Your task to perform on an android device: Check the news Image 0: 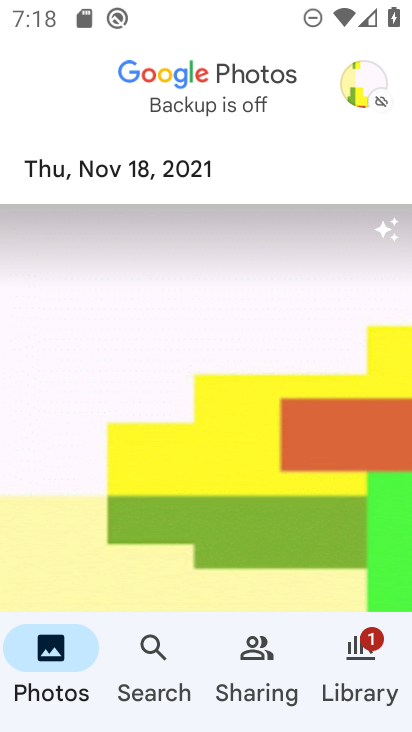
Step 0: press home button
Your task to perform on an android device: Check the news Image 1: 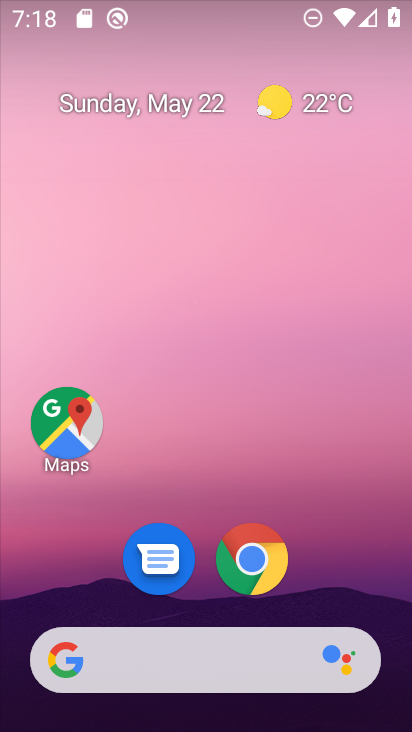
Step 1: drag from (267, 695) to (270, 115)
Your task to perform on an android device: Check the news Image 2: 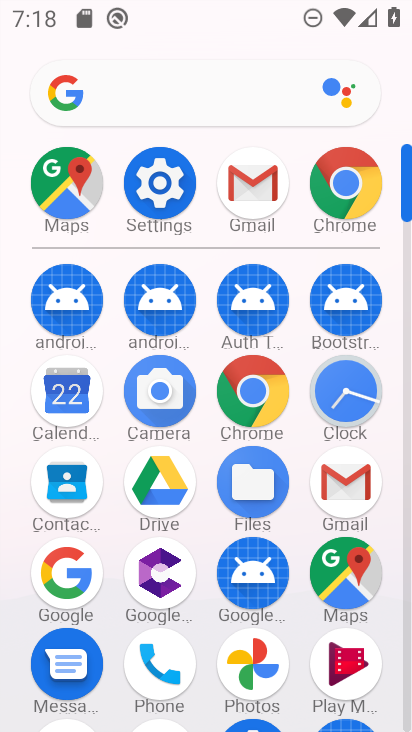
Step 2: click (173, 116)
Your task to perform on an android device: Check the news Image 3: 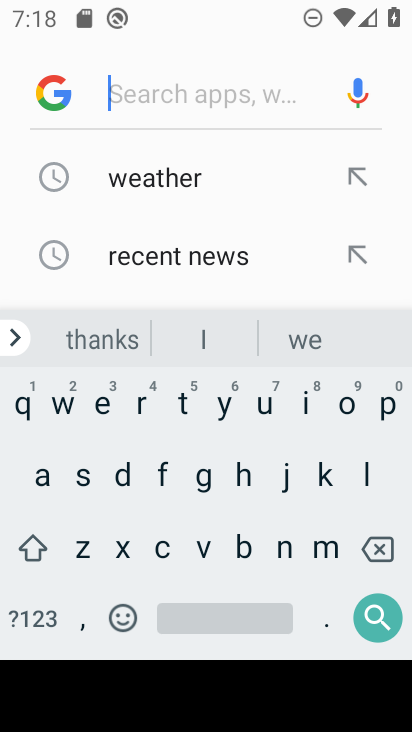
Step 3: click (276, 546)
Your task to perform on an android device: Check the news Image 4: 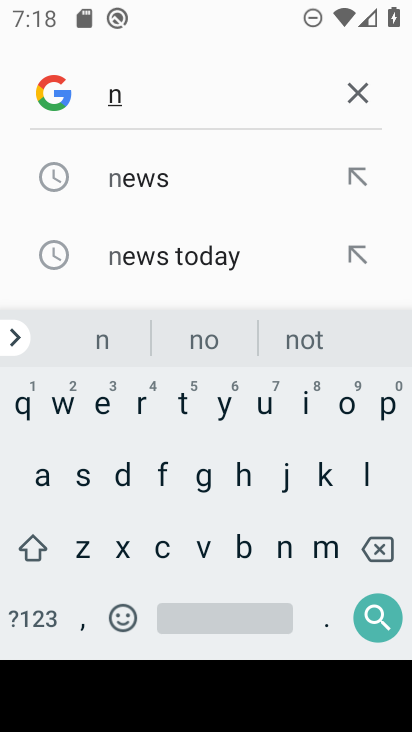
Step 4: click (98, 412)
Your task to perform on an android device: Check the news Image 5: 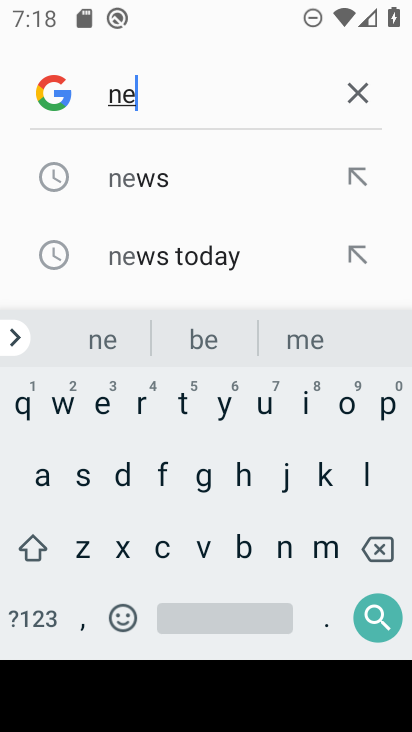
Step 5: click (145, 200)
Your task to perform on an android device: Check the news Image 6: 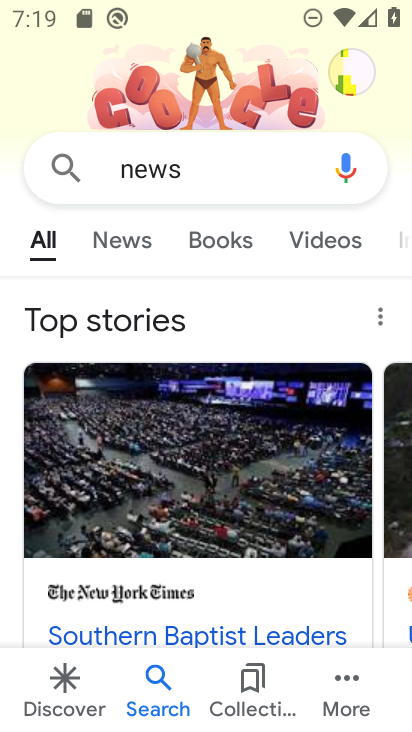
Step 6: task complete